Your task to perform on an android device: Set the phone to "Do not disturb". Image 0: 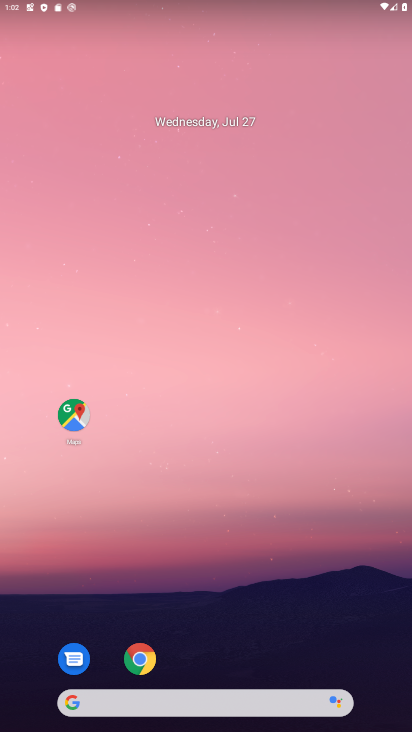
Step 0: drag from (242, 663) to (293, 197)
Your task to perform on an android device: Set the phone to "Do not disturb". Image 1: 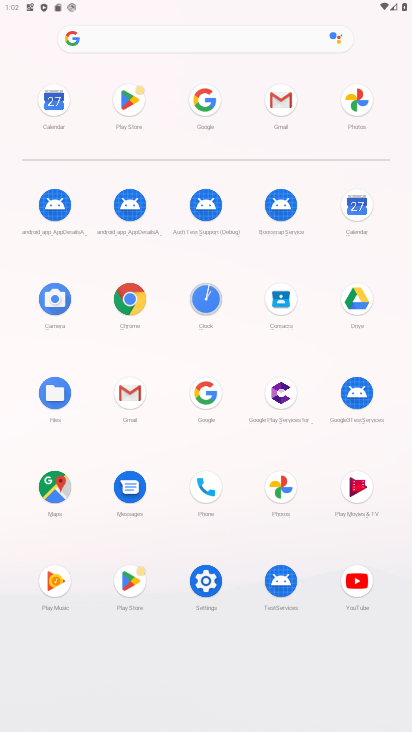
Step 1: click (201, 576)
Your task to perform on an android device: Set the phone to "Do not disturb". Image 2: 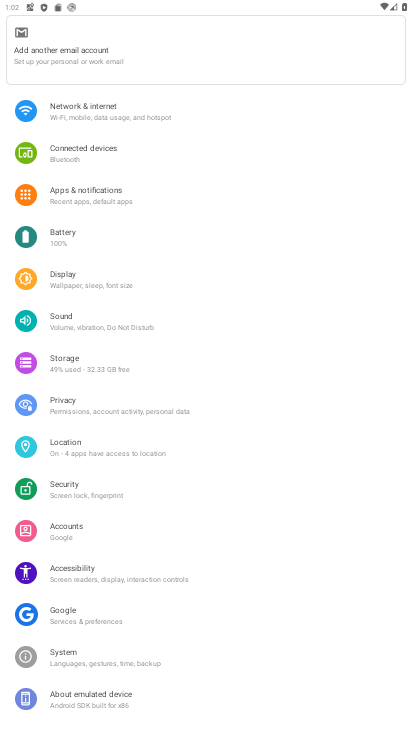
Step 2: drag from (204, 211) to (183, 597)
Your task to perform on an android device: Set the phone to "Do not disturb". Image 3: 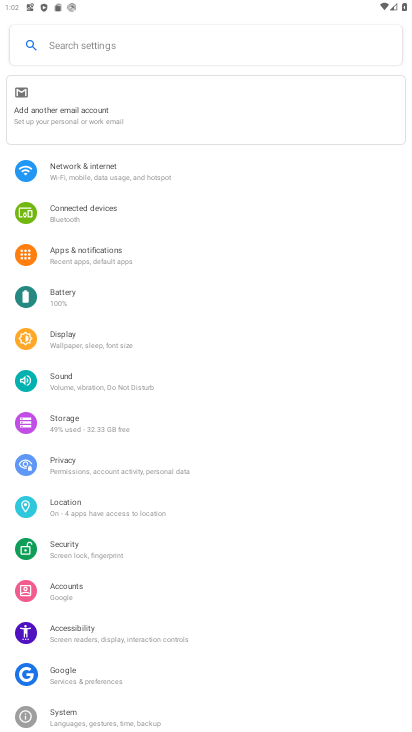
Step 3: click (152, 43)
Your task to perform on an android device: Set the phone to "Do not disturb". Image 4: 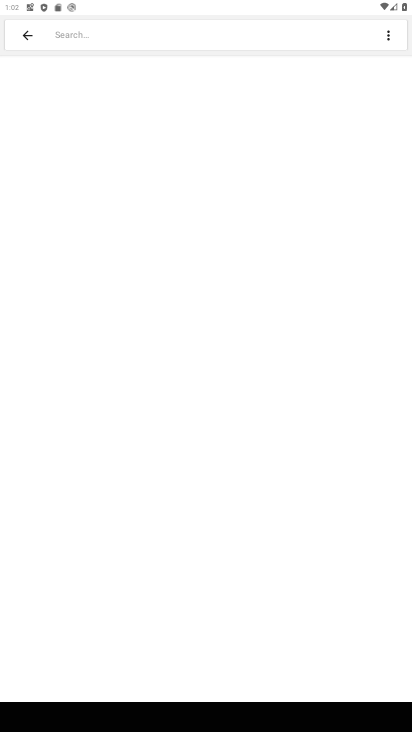
Step 4: click (166, 39)
Your task to perform on an android device: Set the phone to "Do not disturb". Image 5: 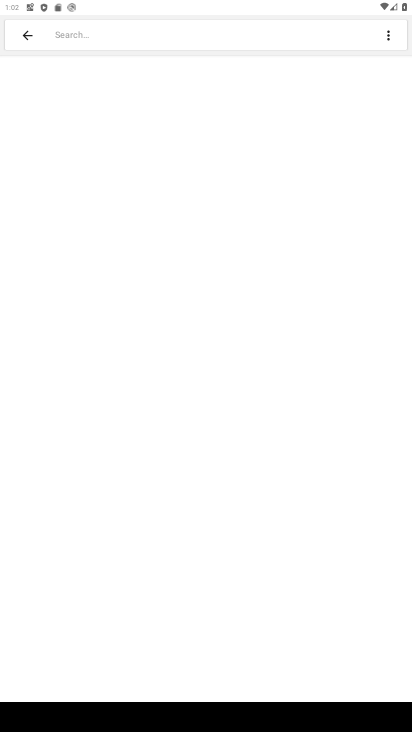
Step 5: type "Do not disturb"
Your task to perform on an android device: Set the phone to "Do not disturb". Image 6: 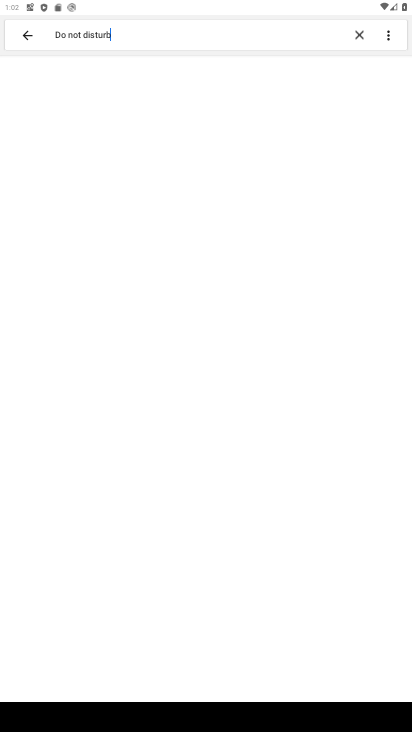
Step 6: type ""
Your task to perform on an android device: Set the phone to "Do not disturb". Image 7: 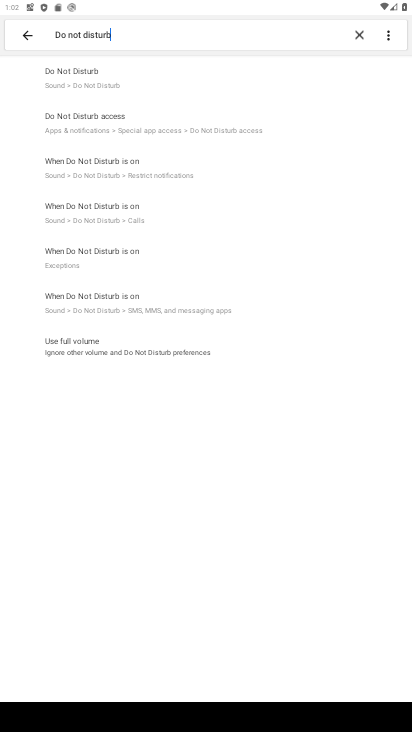
Step 7: click (99, 78)
Your task to perform on an android device: Set the phone to "Do not disturb". Image 8: 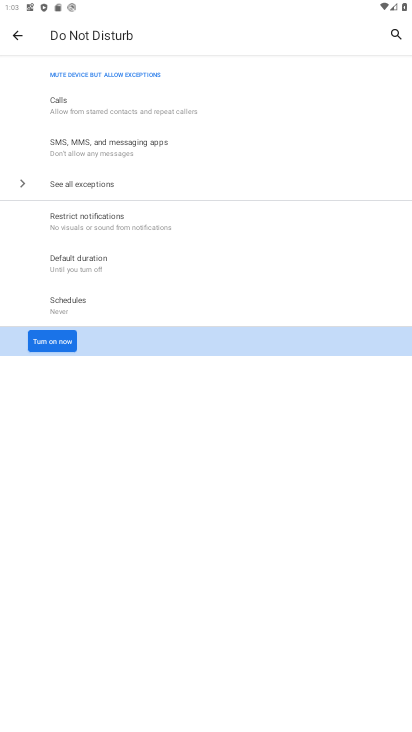
Step 8: click (65, 342)
Your task to perform on an android device: Set the phone to "Do not disturb". Image 9: 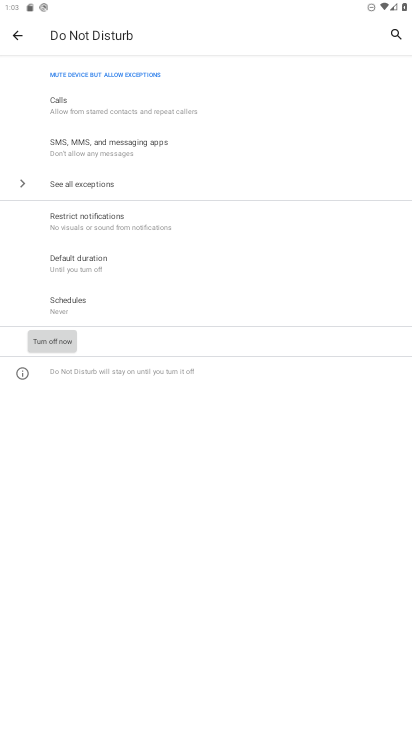
Step 9: task complete